Your task to perform on an android device: View the shopping cart on newegg. Search for logitech g pro on newegg, select the first entry, and add it to the cart. Image 0: 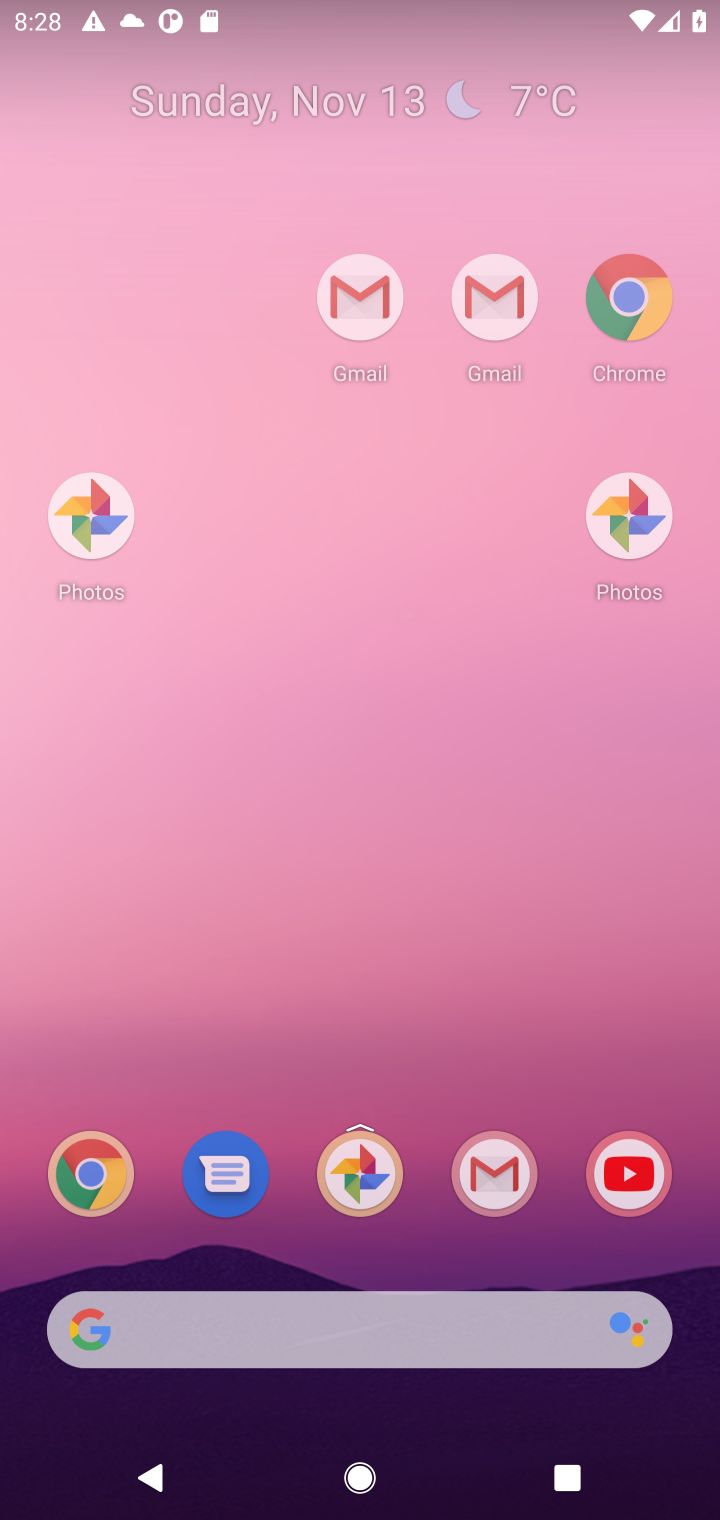
Step 0: press home button
Your task to perform on an android device: View the shopping cart on newegg. Search for logitech g pro on newegg, select the first entry, and add it to the cart. Image 1: 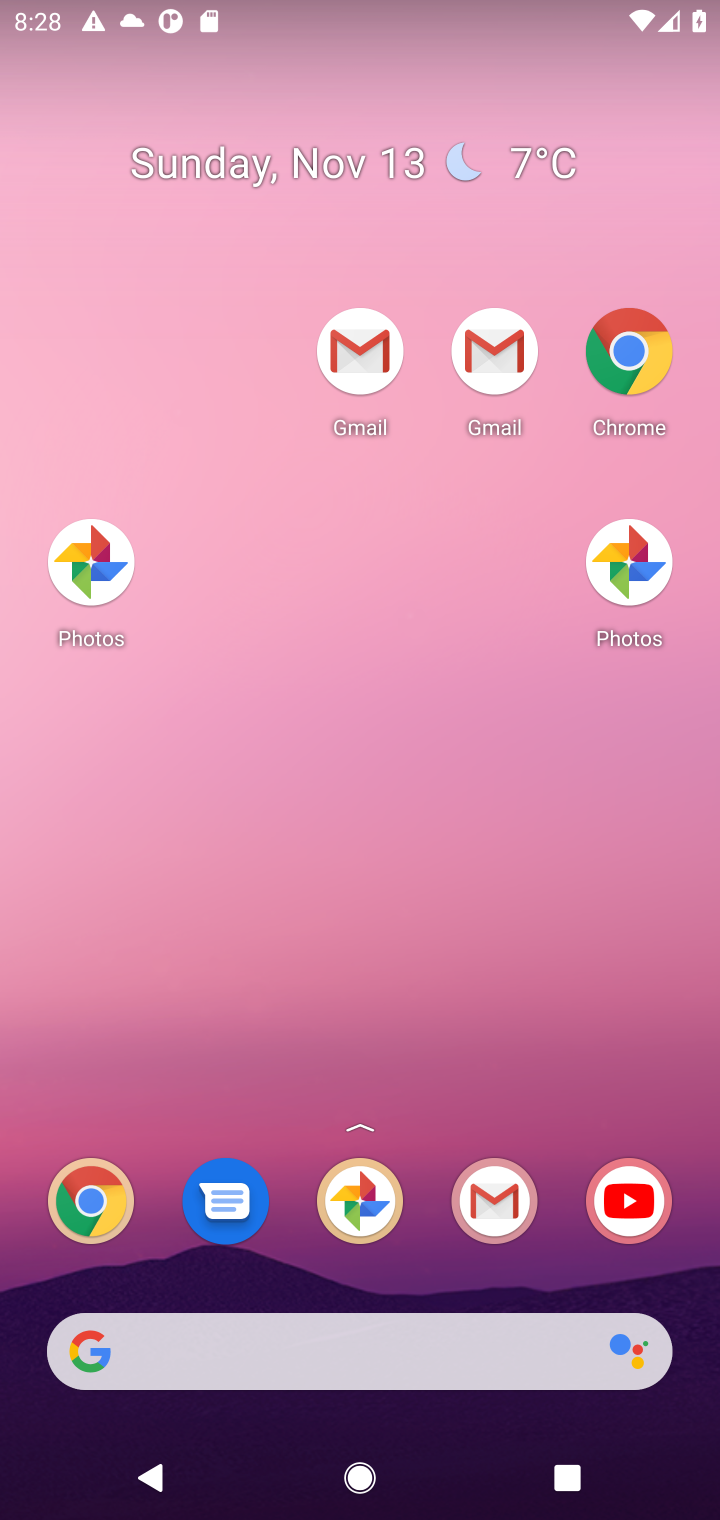
Step 1: drag from (388, 1123) to (423, 292)
Your task to perform on an android device: View the shopping cart on newegg. Search for logitech g pro on newegg, select the first entry, and add it to the cart. Image 2: 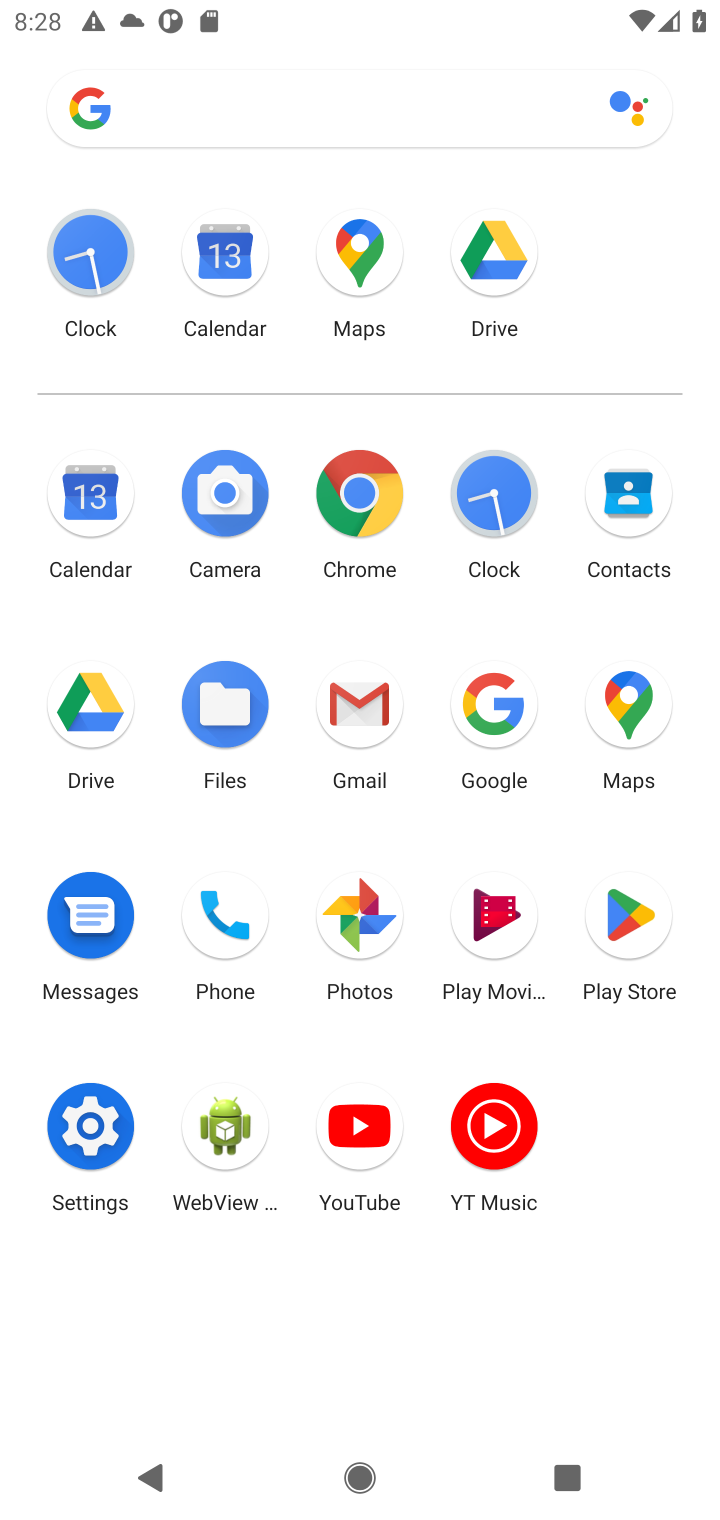
Step 2: click (363, 484)
Your task to perform on an android device: View the shopping cart on newegg. Search for logitech g pro on newegg, select the first entry, and add it to the cart. Image 3: 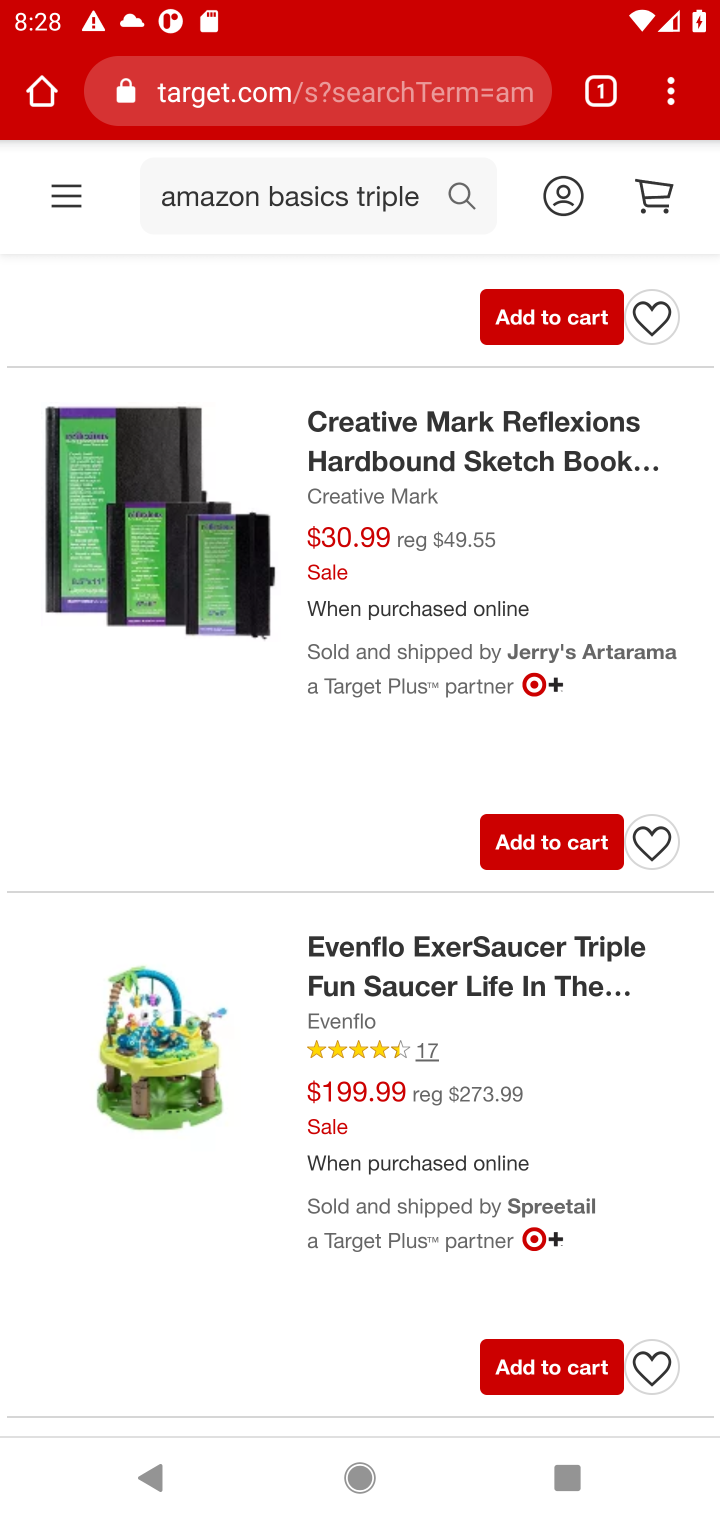
Step 3: click (330, 92)
Your task to perform on an android device: View the shopping cart on newegg. Search for logitech g pro on newegg, select the first entry, and add it to the cart. Image 4: 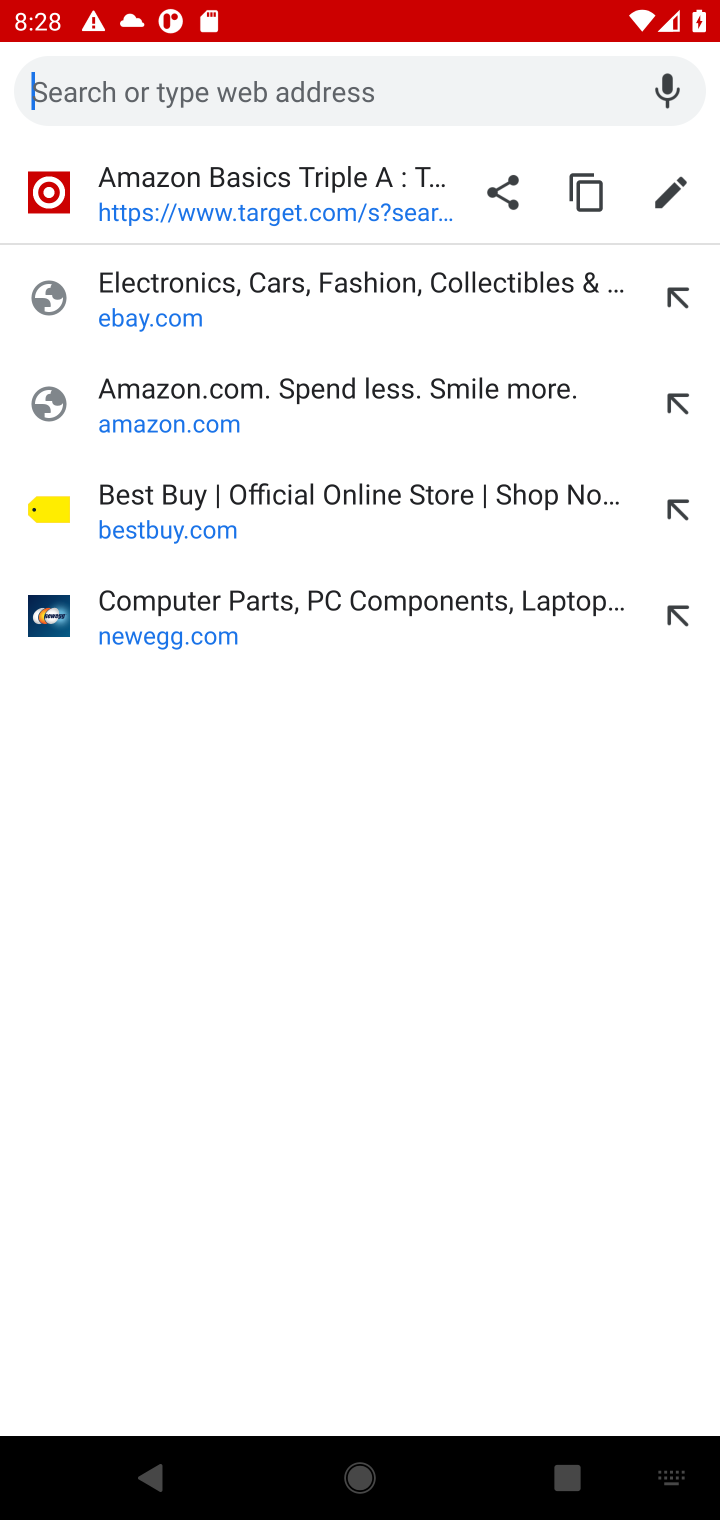
Step 4: type "newegg.com"
Your task to perform on an android device: View the shopping cart on newegg. Search for logitech g pro on newegg, select the first entry, and add it to the cart. Image 5: 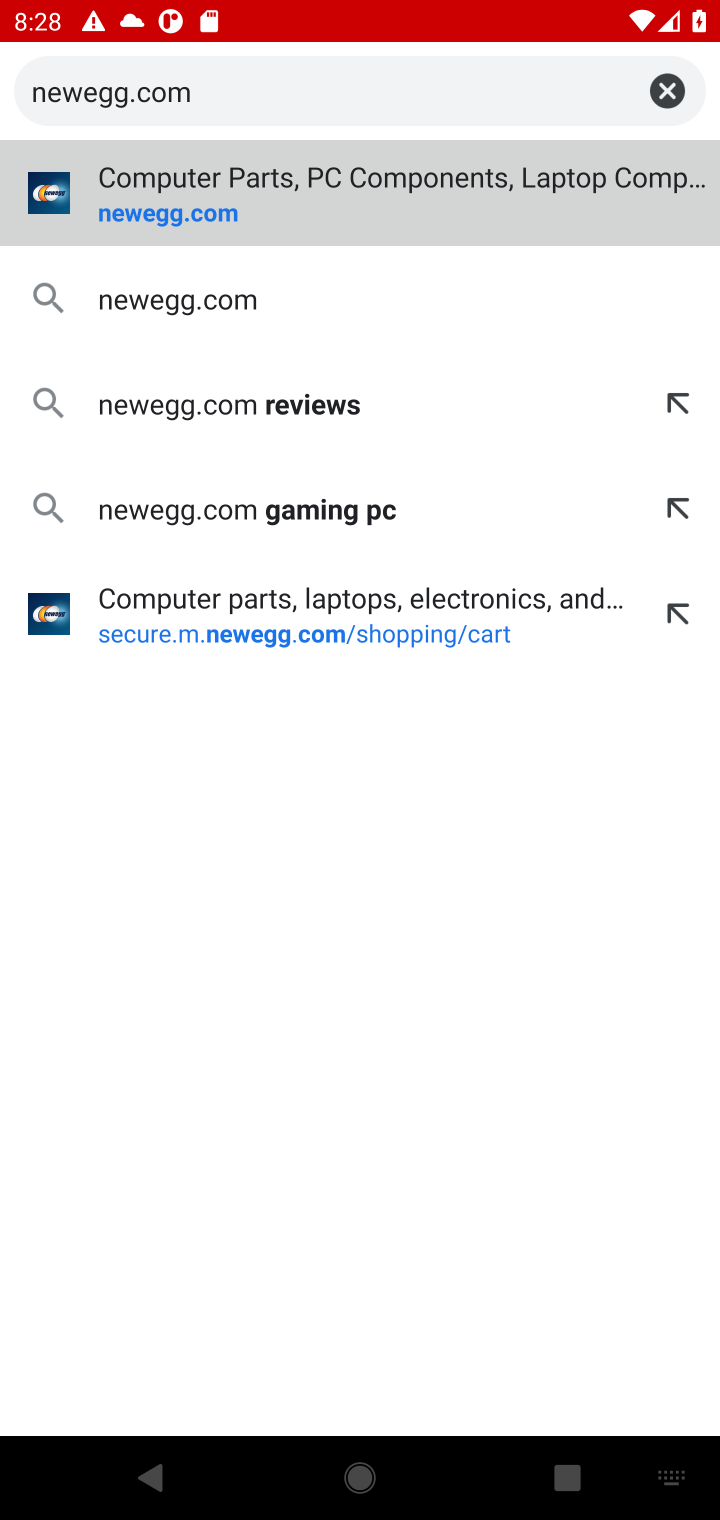
Step 5: press enter
Your task to perform on an android device: View the shopping cart on newegg. Search for logitech g pro on newegg, select the first entry, and add it to the cart. Image 6: 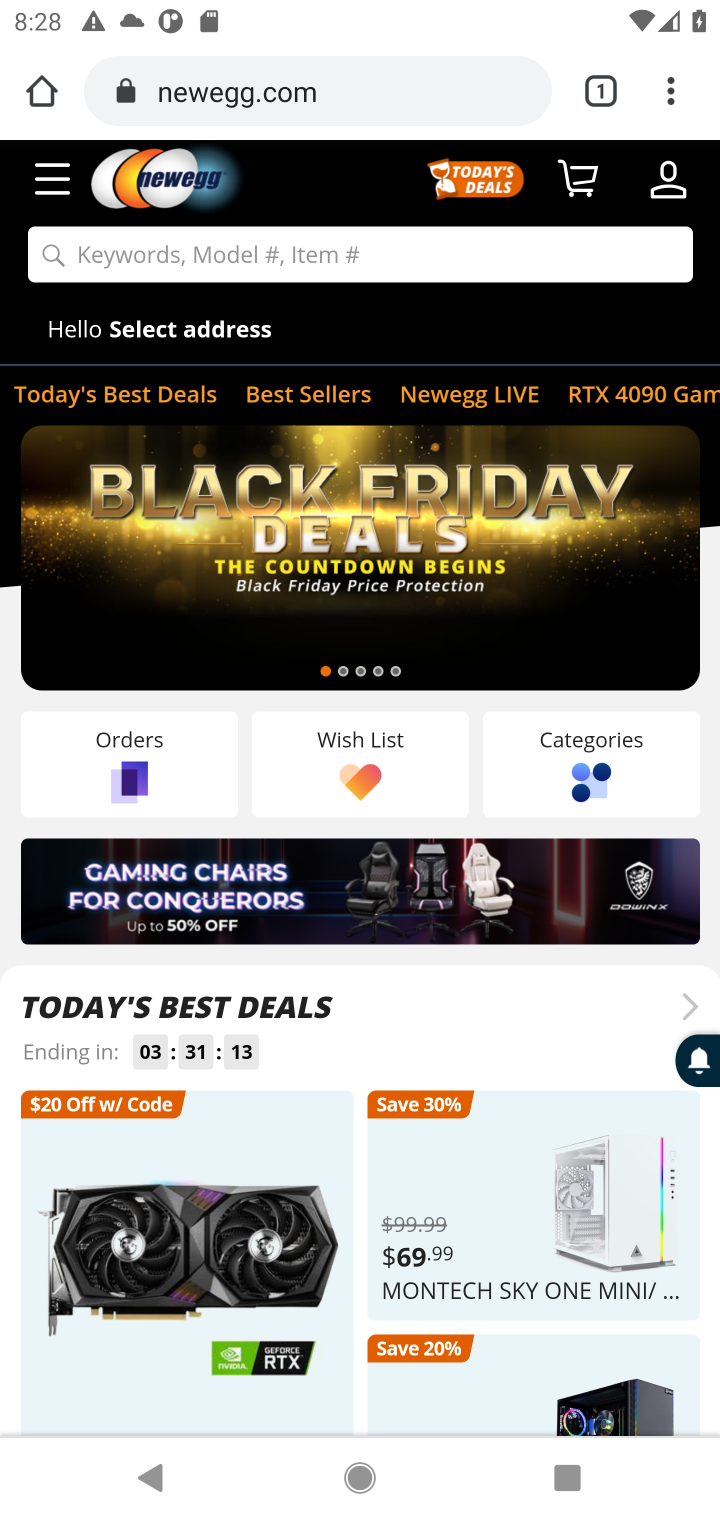
Step 6: click (588, 206)
Your task to perform on an android device: View the shopping cart on newegg. Search for logitech g pro on newegg, select the first entry, and add it to the cart. Image 7: 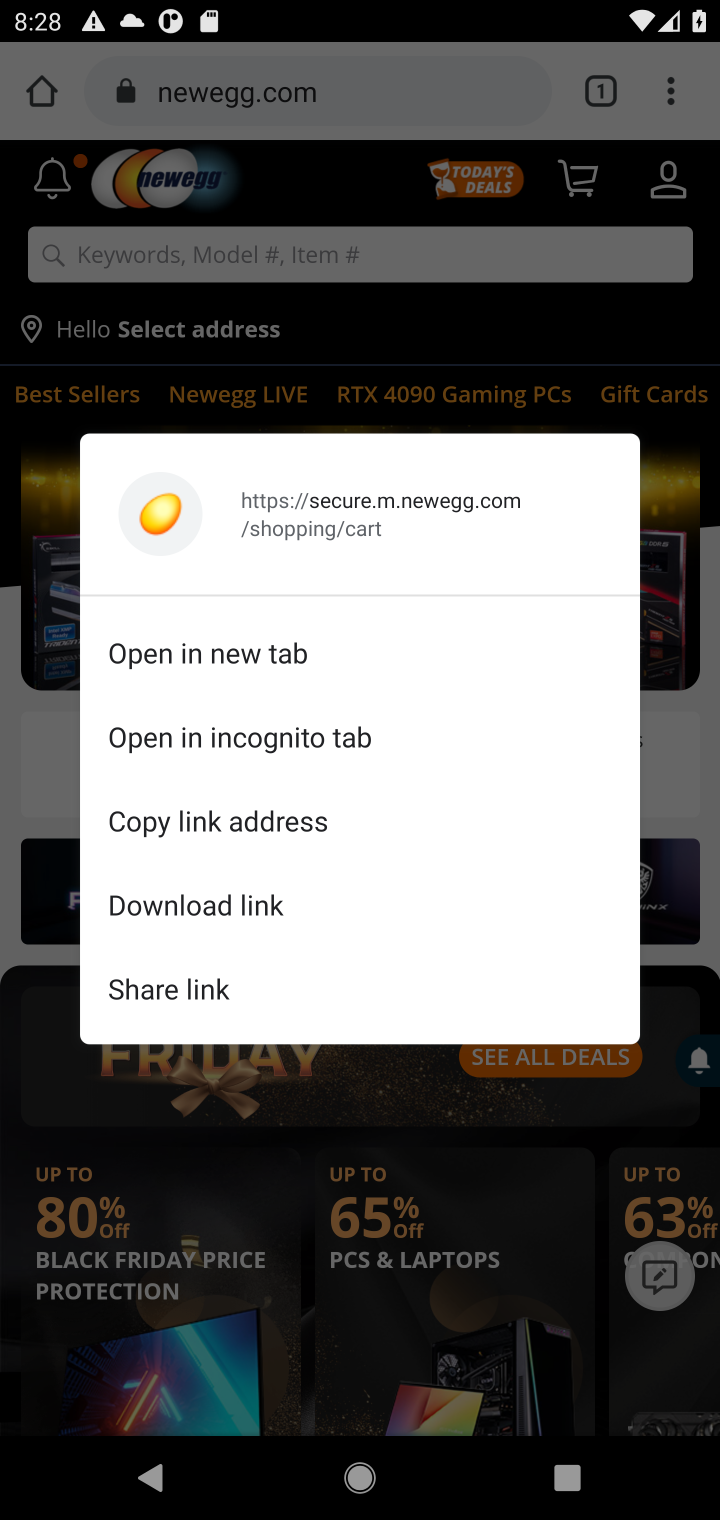
Step 7: click (588, 206)
Your task to perform on an android device: View the shopping cart on newegg. Search for logitech g pro on newegg, select the first entry, and add it to the cart. Image 8: 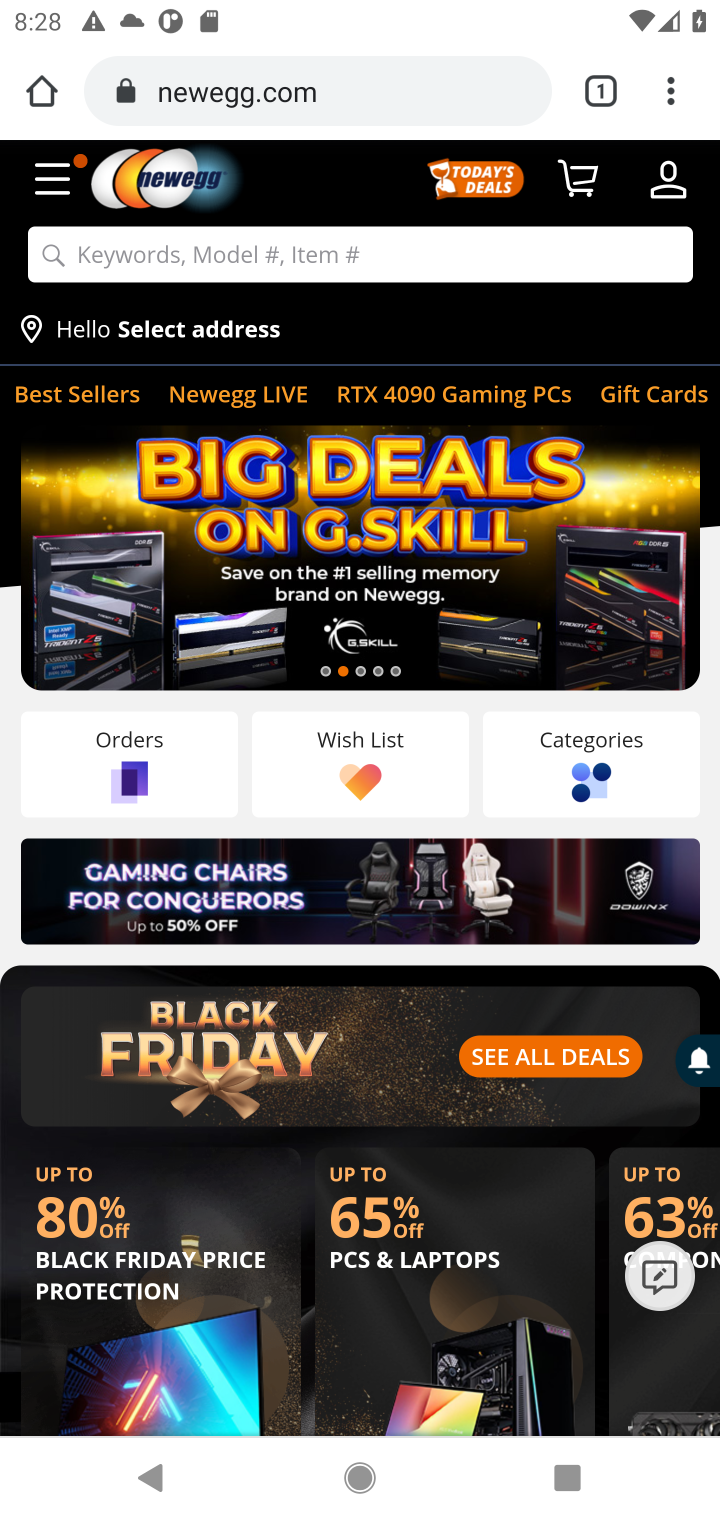
Step 8: click (577, 188)
Your task to perform on an android device: View the shopping cart on newegg. Search for logitech g pro on newegg, select the first entry, and add it to the cart. Image 9: 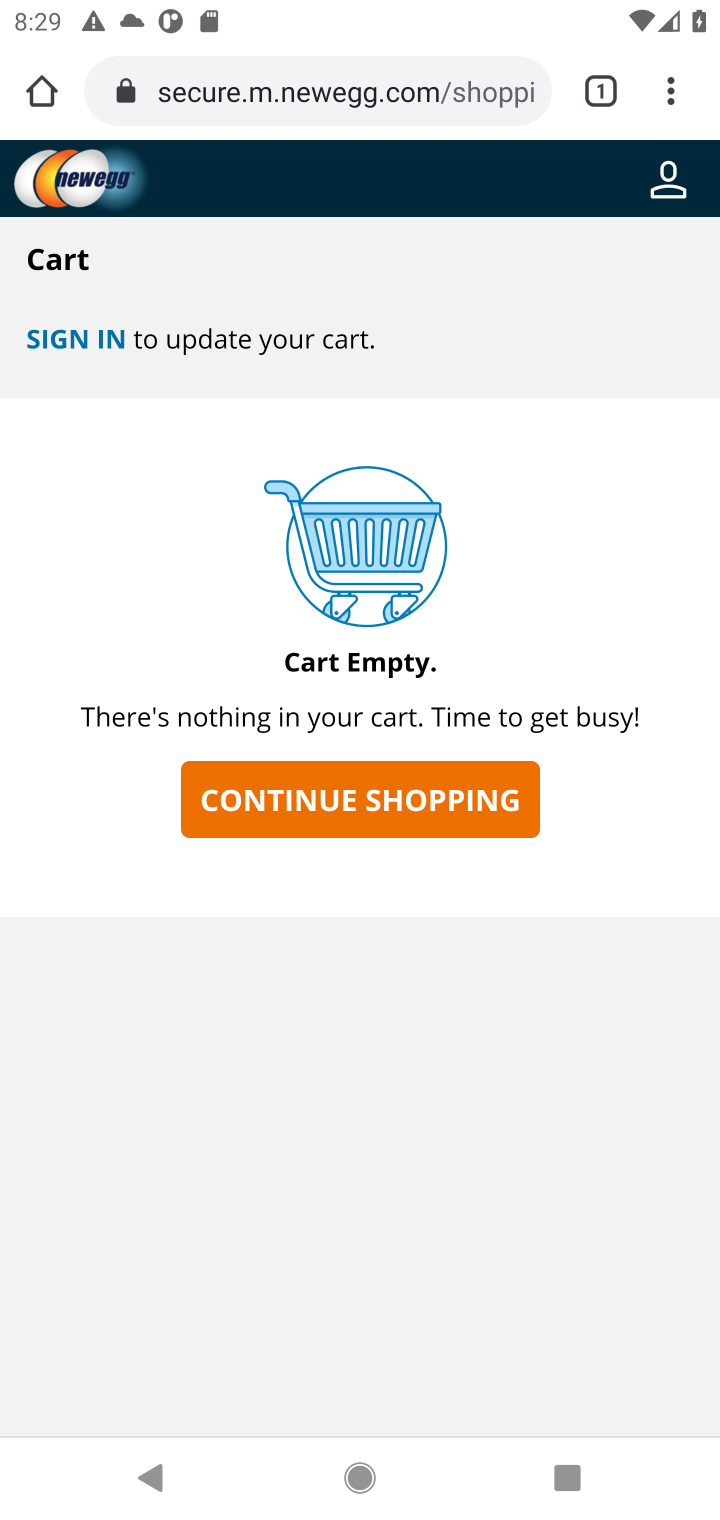
Step 9: click (391, 815)
Your task to perform on an android device: View the shopping cart on newegg. Search for logitech g pro on newegg, select the first entry, and add it to the cart. Image 10: 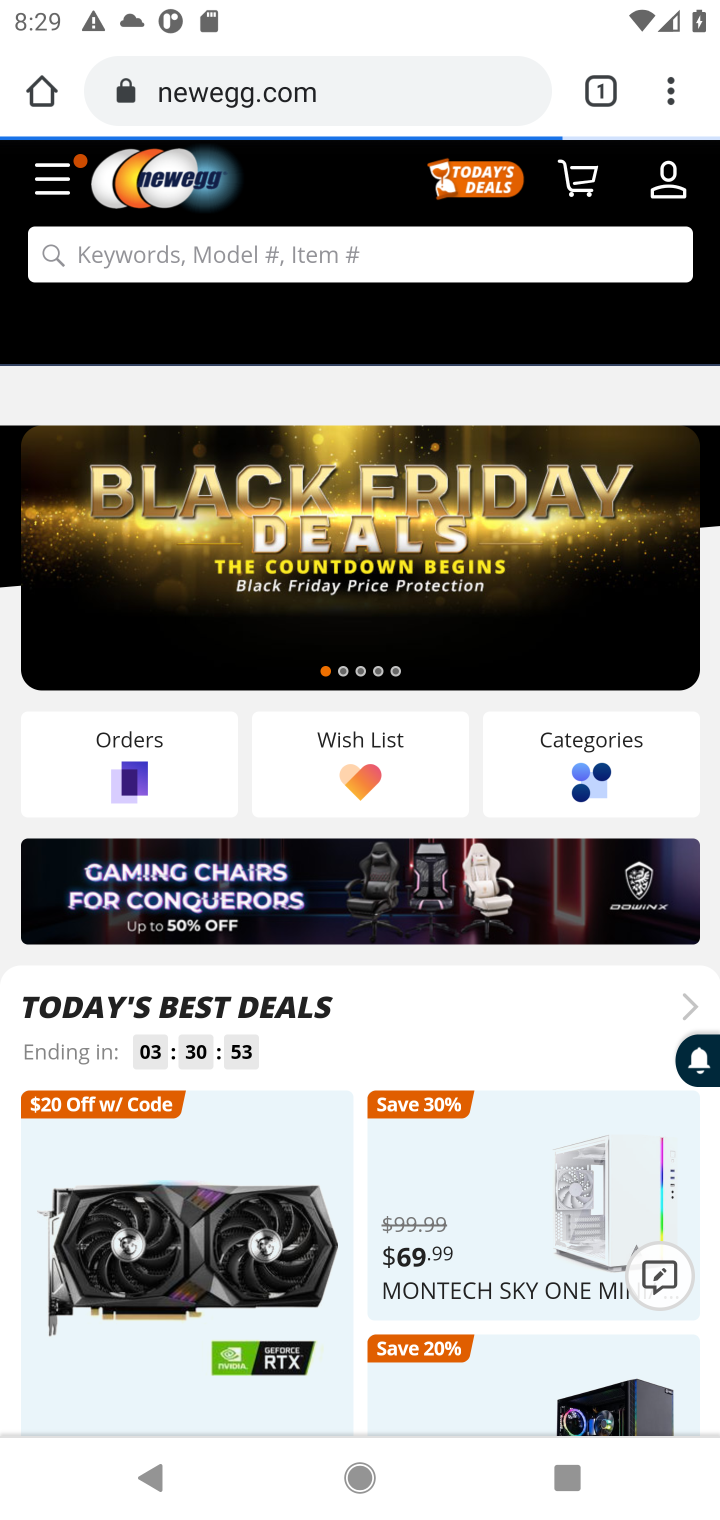
Step 10: click (386, 252)
Your task to perform on an android device: View the shopping cart on newegg. Search for logitech g pro on newegg, select the first entry, and add it to the cart. Image 11: 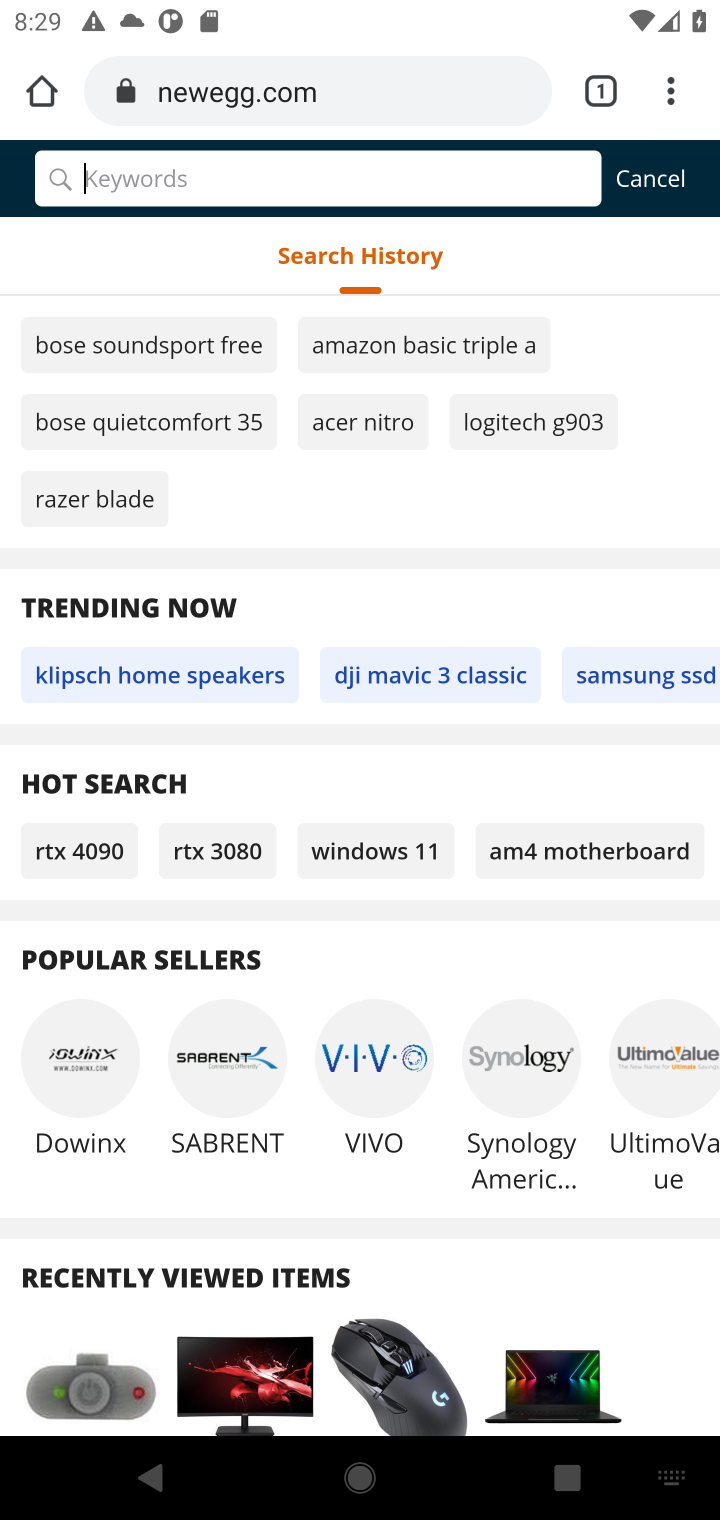
Step 11: type "logitech g pro"
Your task to perform on an android device: View the shopping cart on newegg. Search for logitech g pro on newegg, select the first entry, and add it to the cart. Image 12: 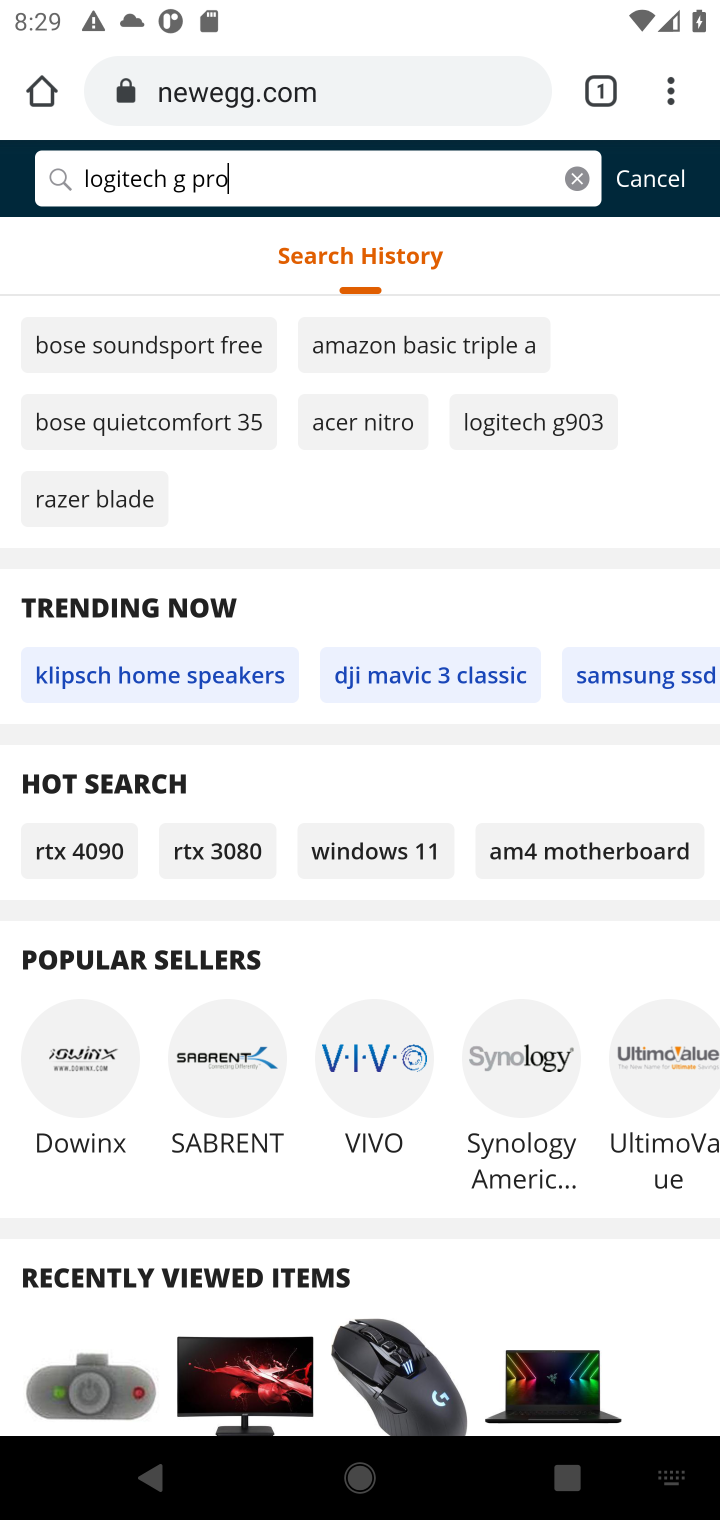
Step 12: press enter
Your task to perform on an android device: View the shopping cart on newegg. Search for logitech g pro on newegg, select the first entry, and add it to the cart. Image 13: 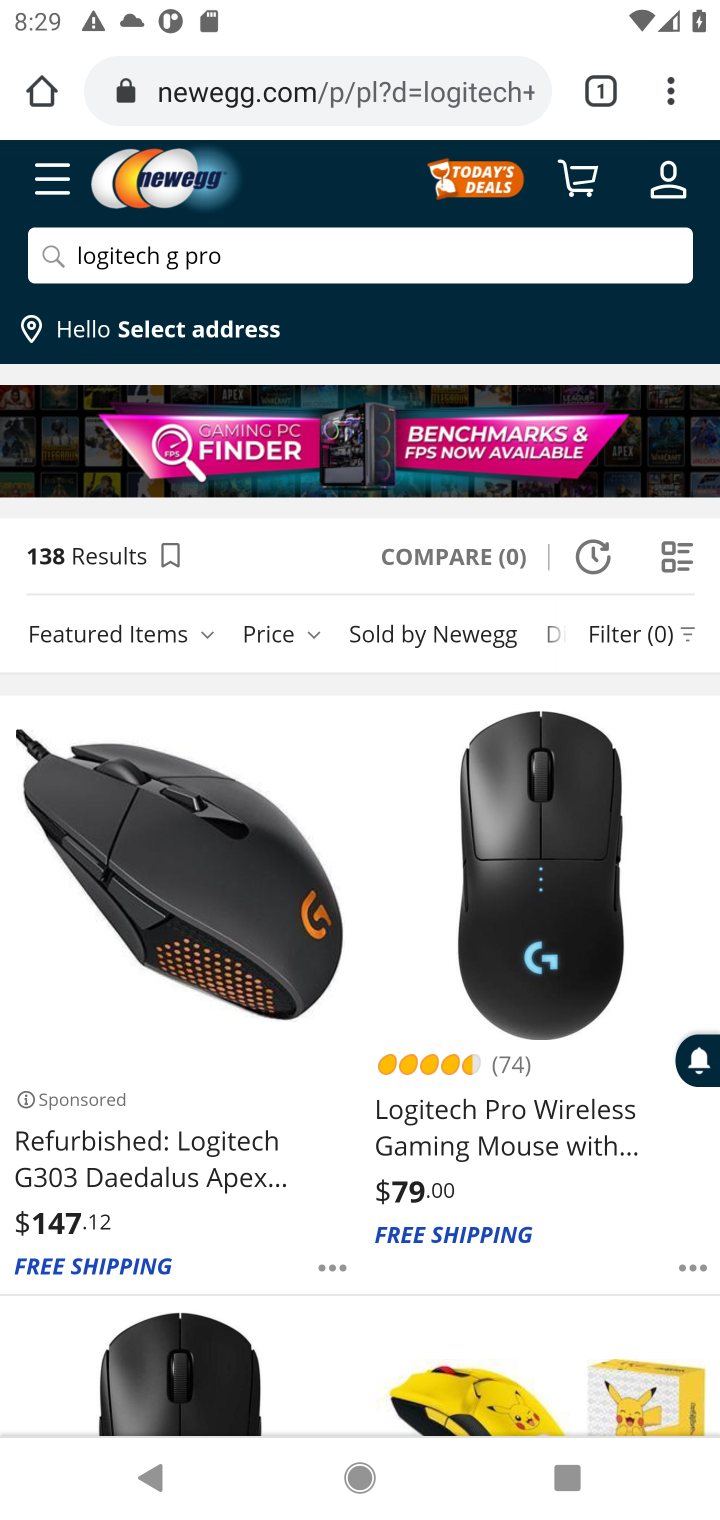
Step 13: drag from (482, 1108) to (492, 558)
Your task to perform on an android device: View the shopping cart on newegg. Search for logitech g pro on newegg, select the first entry, and add it to the cart. Image 14: 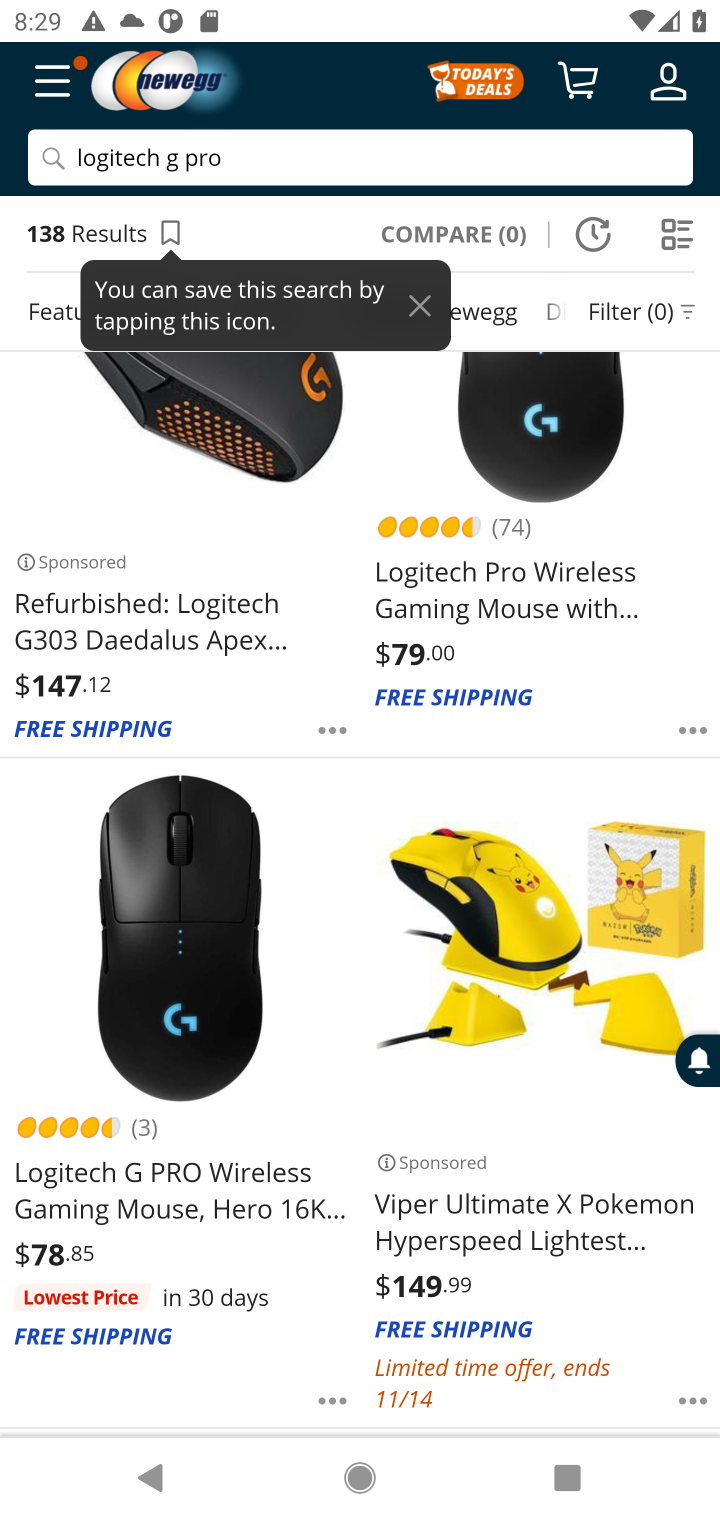
Step 14: click (140, 1201)
Your task to perform on an android device: View the shopping cart on newegg. Search for logitech g pro on newegg, select the first entry, and add it to the cart. Image 15: 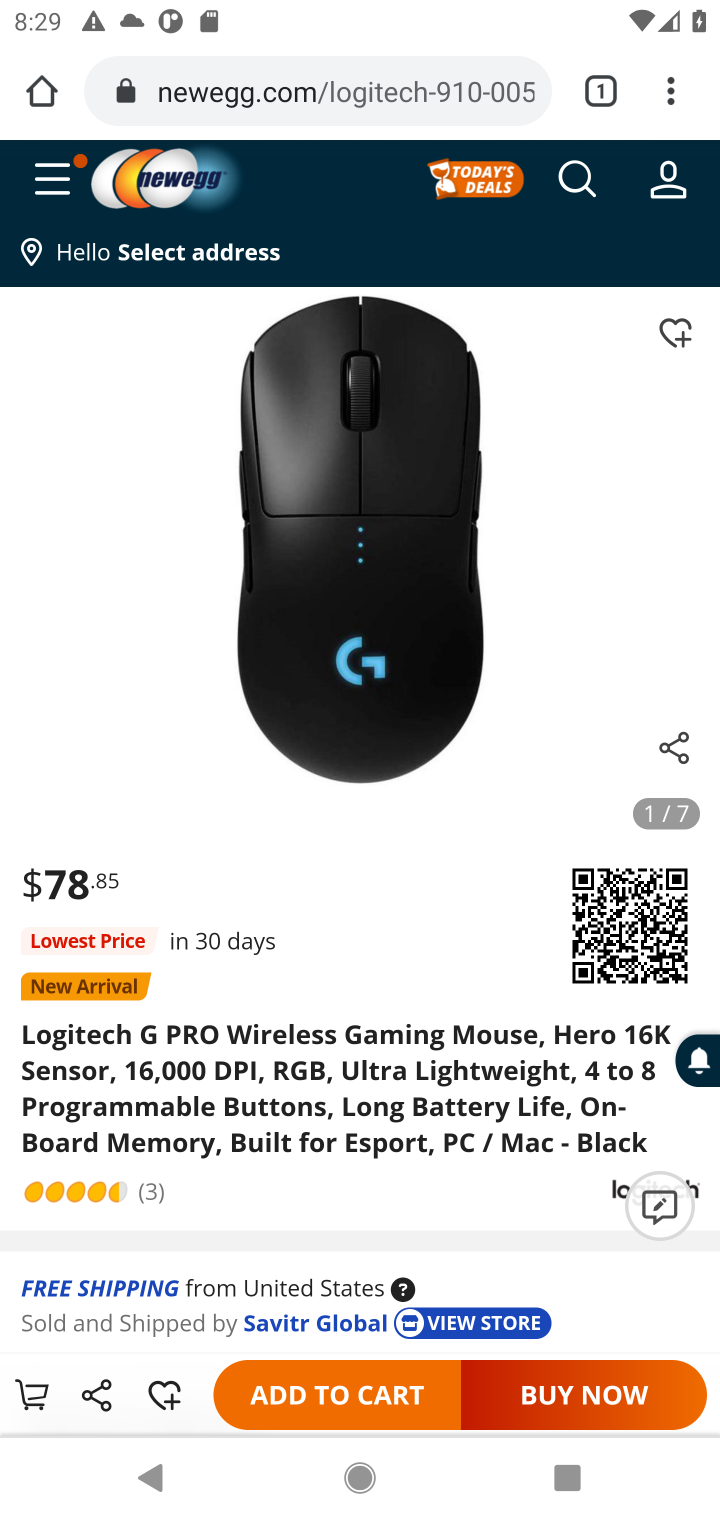
Step 15: click (304, 1390)
Your task to perform on an android device: View the shopping cart on newegg. Search for logitech g pro on newegg, select the first entry, and add it to the cart. Image 16: 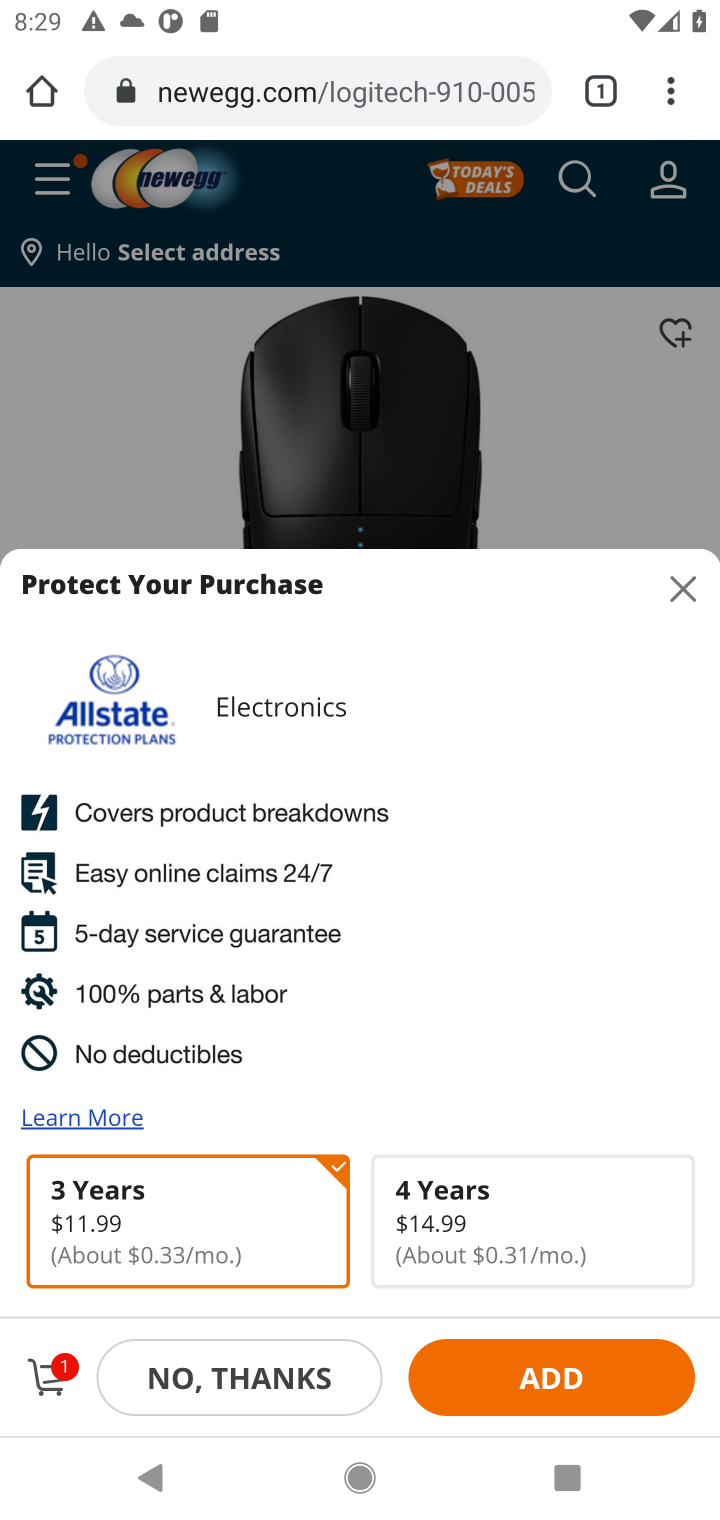
Step 16: task complete